Your task to perform on an android device: uninstall "Microsoft Outlook" Image 0: 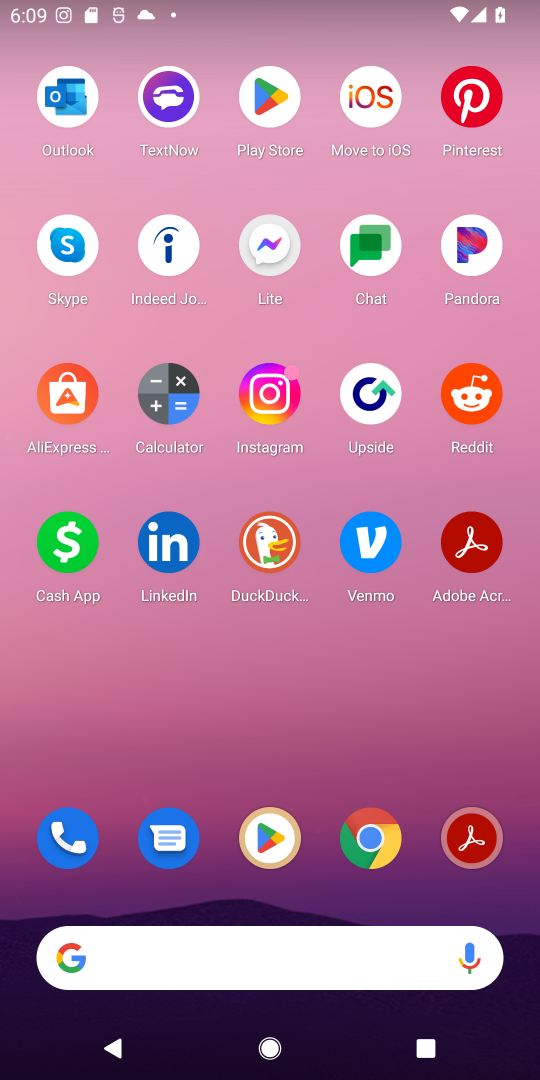
Step 0: click (272, 84)
Your task to perform on an android device: uninstall "Microsoft Outlook" Image 1: 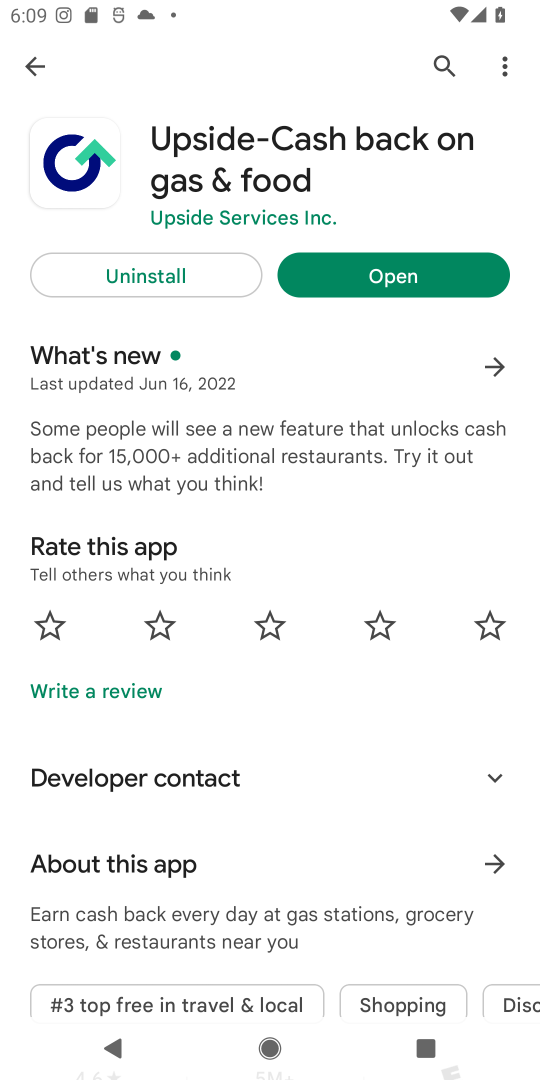
Step 1: click (445, 59)
Your task to perform on an android device: uninstall "Microsoft Outlook" Image 2: 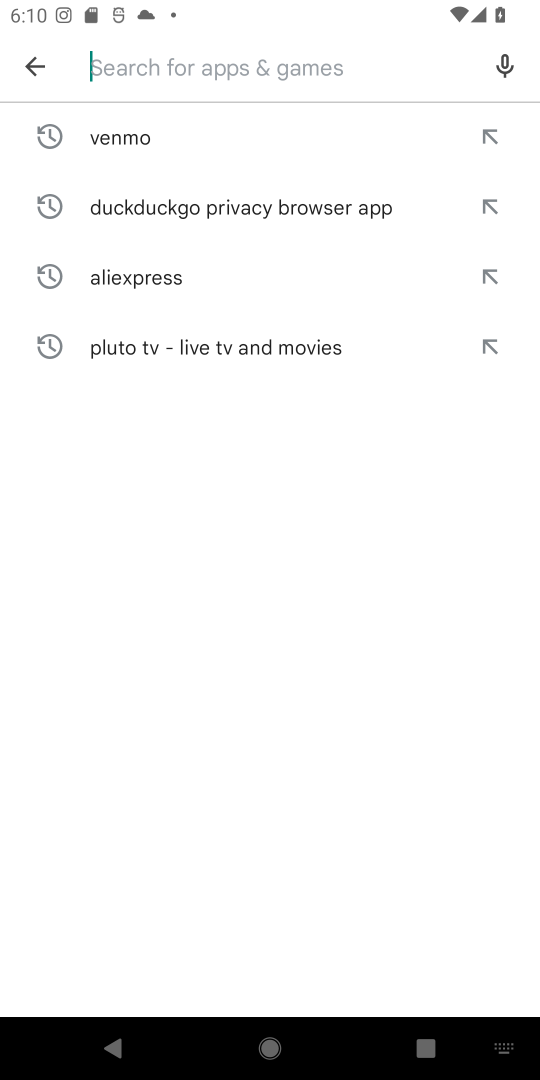
Step 2: type "Microsoft Outlook"
Your task to perform on an android device: uninstall "Microsoft Outlook" Image 3: 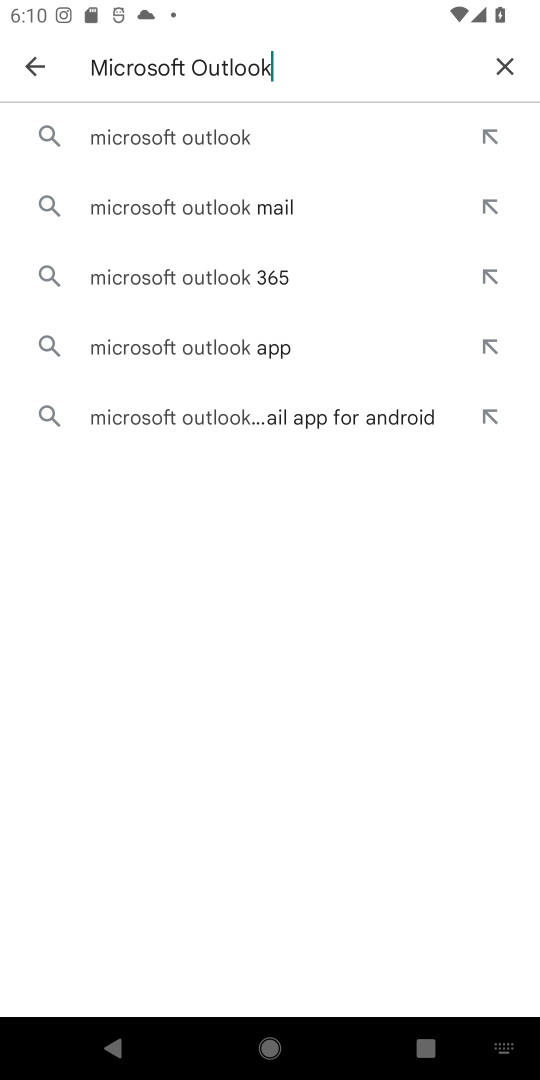
Step 3: click (173, 137)
Your task to perform on an android device: uninstall "Microsoft Outlook" Image 4: 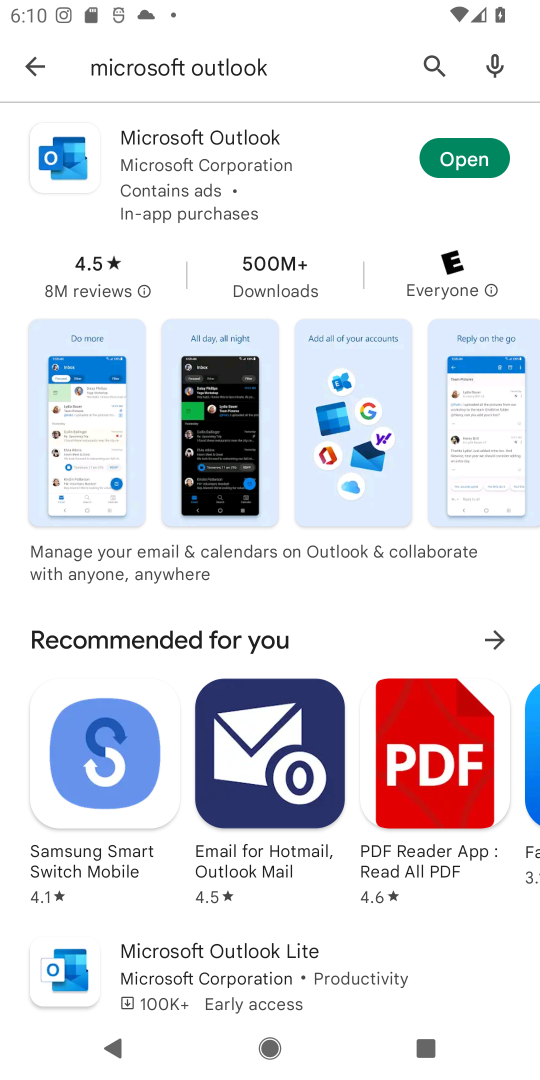
Step 4: click (200, 149)
Your task to perform on an android device: uninstall "Microsoft Outlook" Image 5: 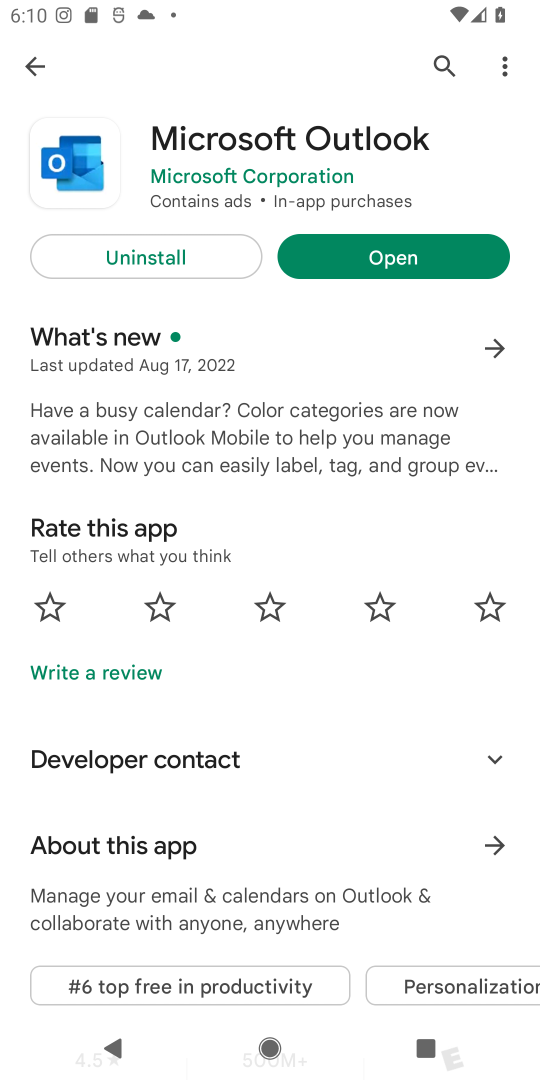
Step 5: click (180, 248)
Your task to perform on an android device: uninstall "Microsoft Outlook" Image 6: 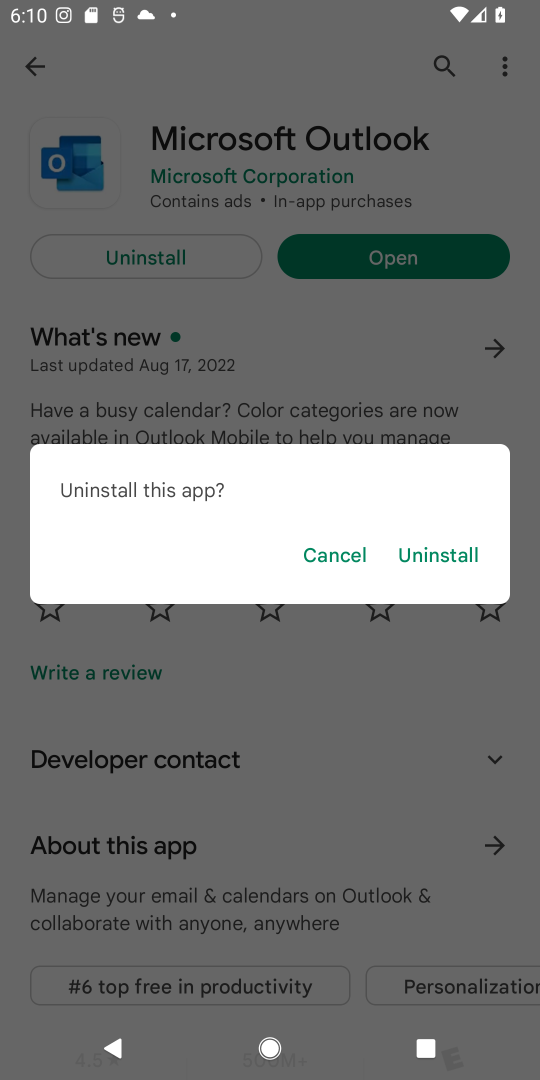
Step 6: click (435, 555)
Your task to perform on an android device: uninstall "Microsoft Outlook" Image 7: 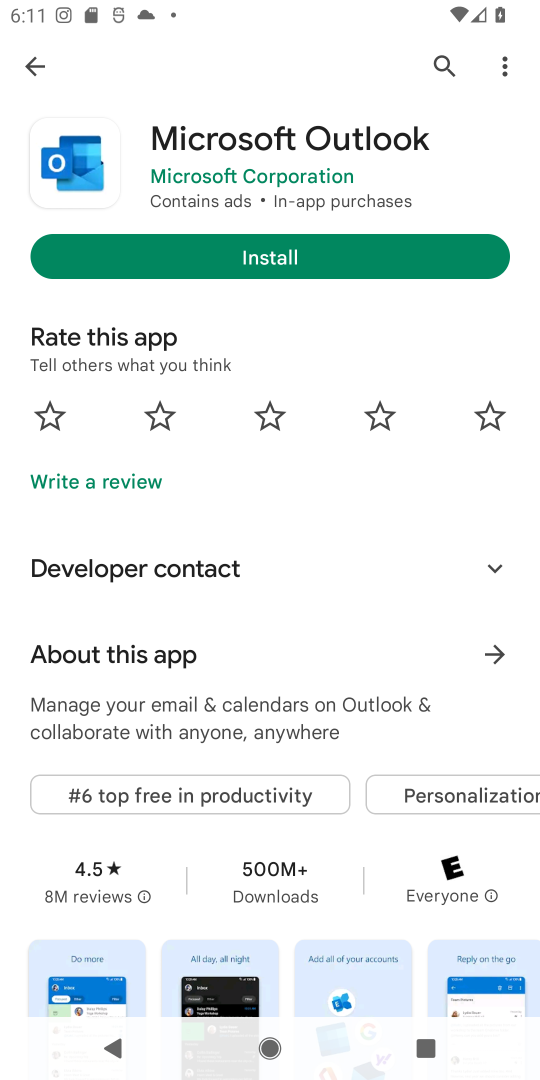
Step 7: task complete